Your task to perform on an android device: install app "Yahoo Mail" Image 0: 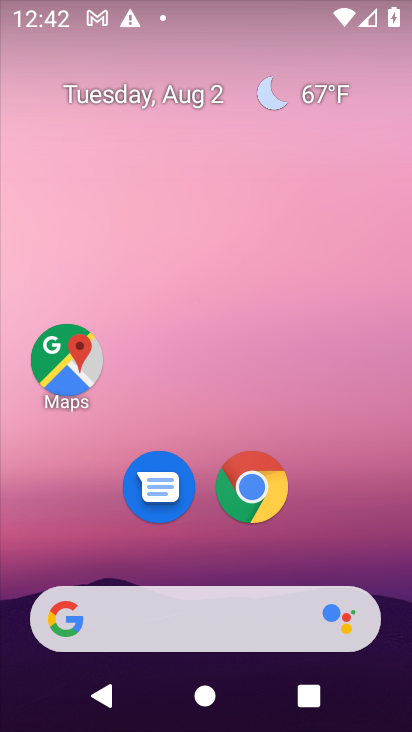
Step 0: drag from (309, 191) to (305, 0)
Your task to perform on an android device: install app "Yahoo Mail" Image 1: 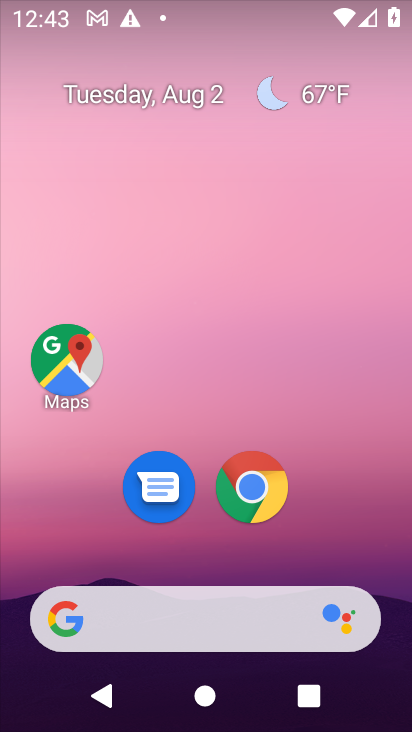
Step 1: click (321, 334)
Your task to perform on an android device: install app "Yahoo Mail" Image 2: 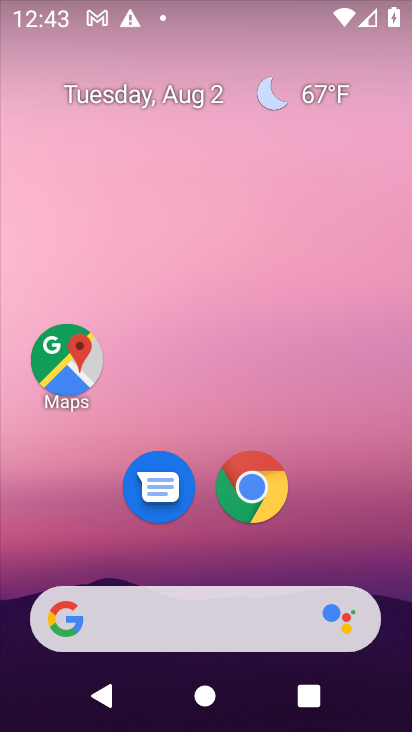
Step 2: drag from (289, 588) to (276, 101)
Your task to perform on an android device: install app "Yahoo Mail" Image 3: 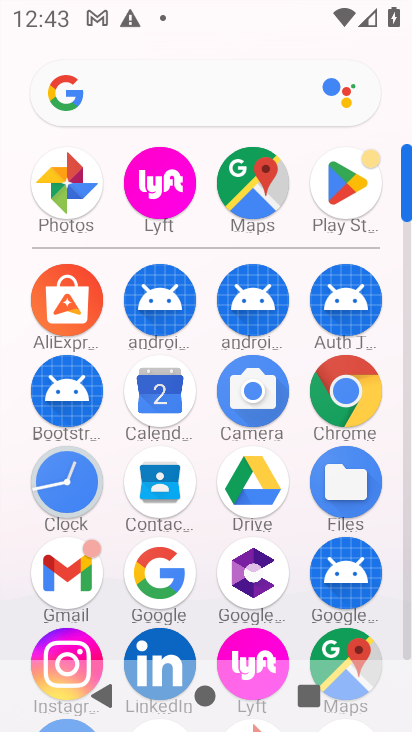
Step 3: drag from (185, 671) to (181, 132)
Your task to perform on an android device: install app "Yahoo Mail" Image 4: 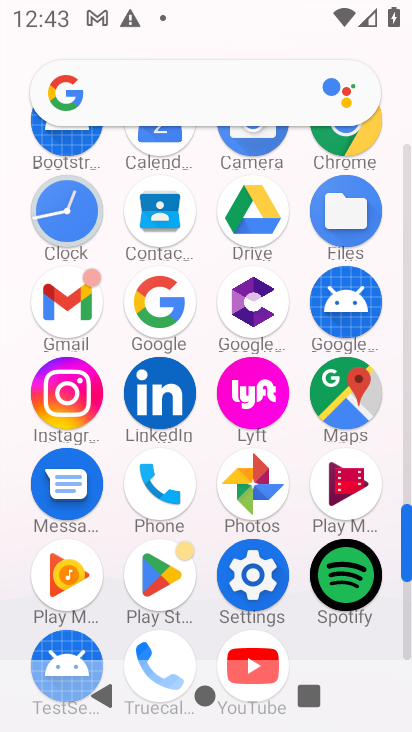
Step 4: click (136, 566)
Your task to perform on an android device: install app "Yahoo Mail" Image 5: 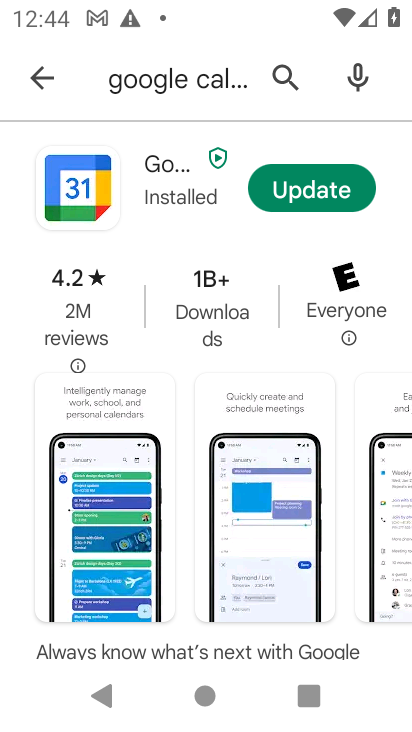
Step 5: click (31, 75)
Your task to perform on an android device: install app "Yahoo Mail" Image 6: 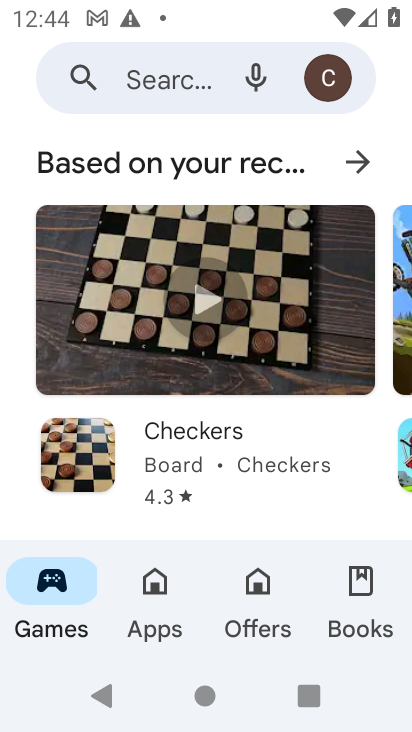
Step 6: click (102, 79)
Your task to perform on an android device: install app "Yahoo Mail" Image 7: 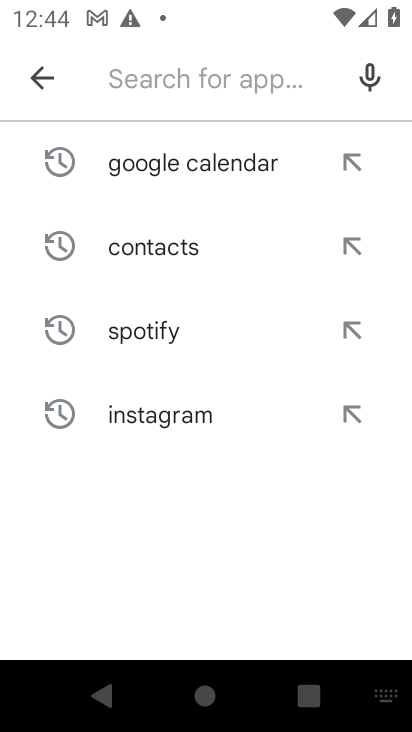
Step 7: type "Yahoo Mail"
Your task to perform on an android device: install app "Yahoo Mail" Image 8: 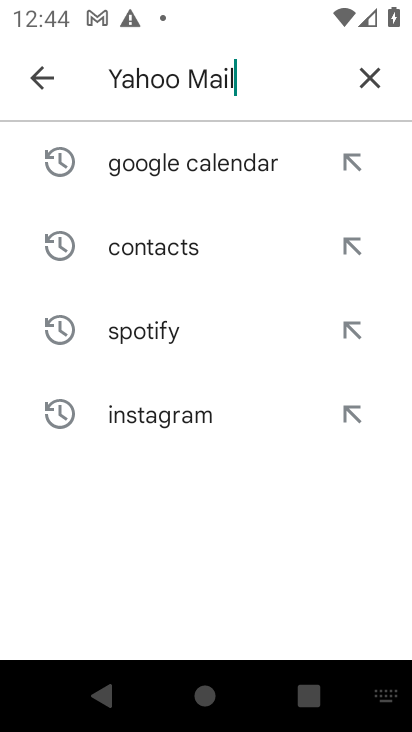
Step 8: type ""
Your task to perform on an android device: install app "Yahoo Mail" Image 9: 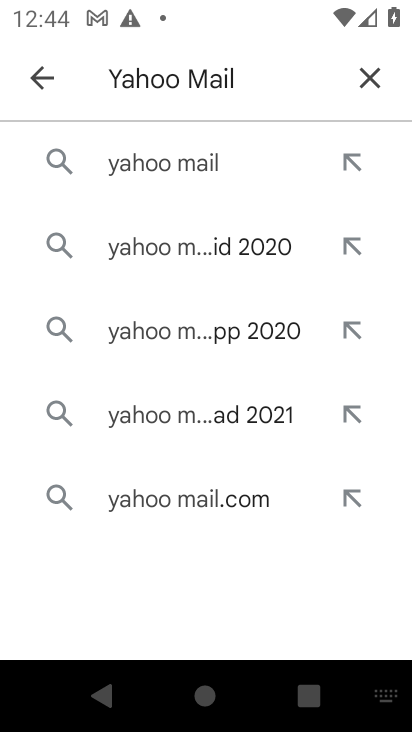
Step 9: click (181, 159)
Your task to perform on an android device: install app "Yahoo Mail" Image 10: 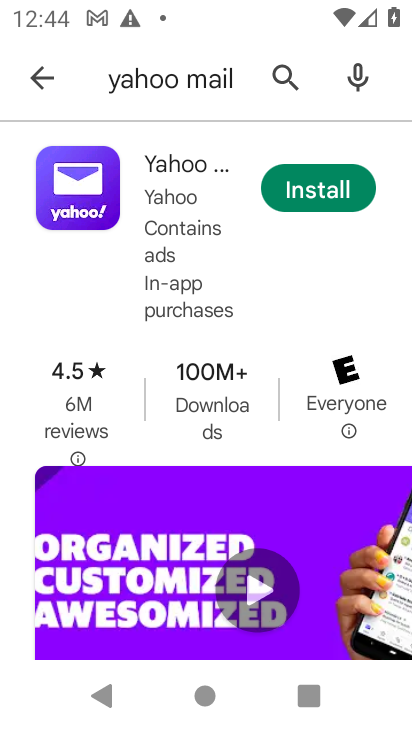
Step 10: click (313, 171)
Your task to perform on an android device: install app "Yahoo Mail" Image 11: 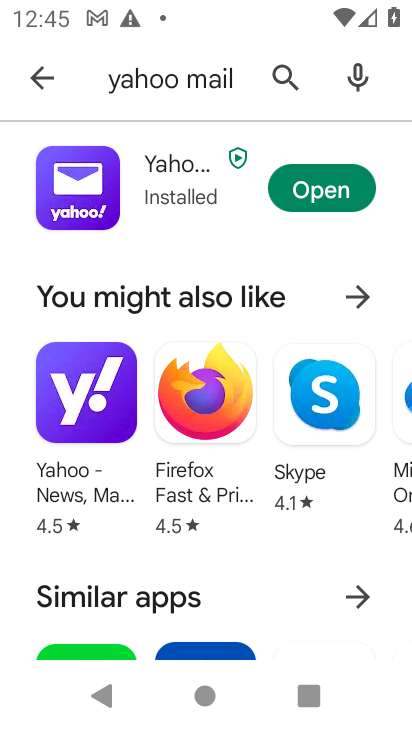
Step 11: task complete